Your task to perform on an android device: open app "Google Calendar" Image 0: 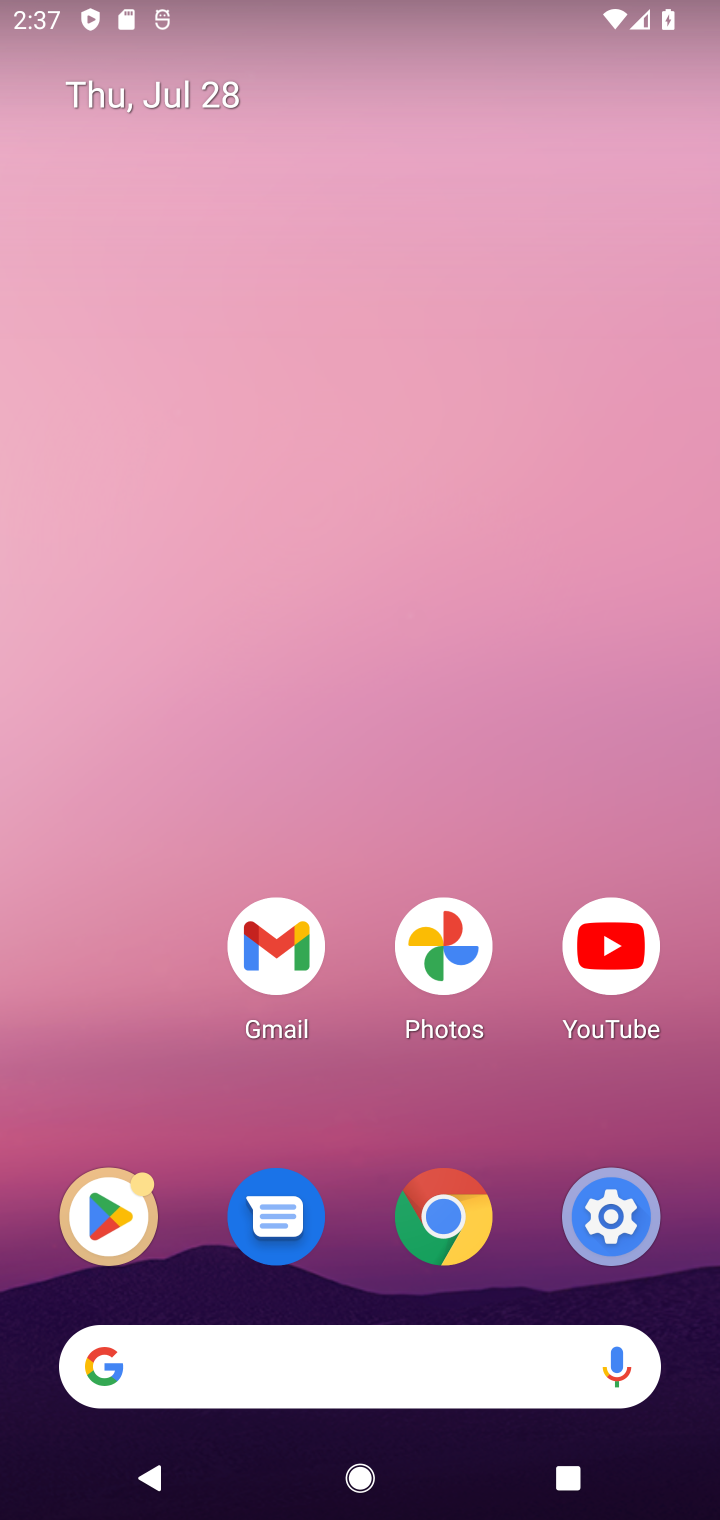
Step 0: drag from (149, 1002) to (196, 18)
Your task to perform on an android device: open app "Google Calendar" Image 1: 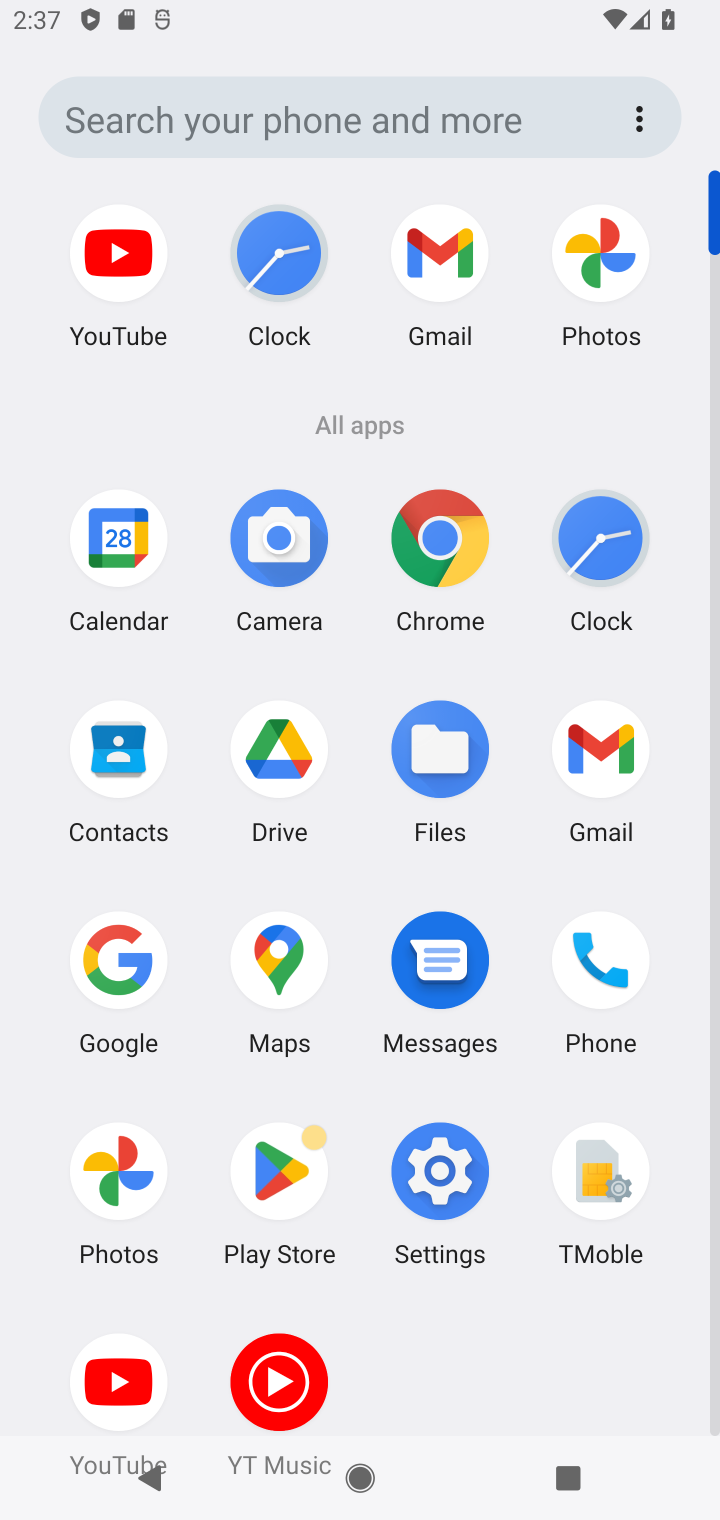
Step 1: click (124, 538)
Your task to perform on an android device: open app "Google Calendar" Image 2: 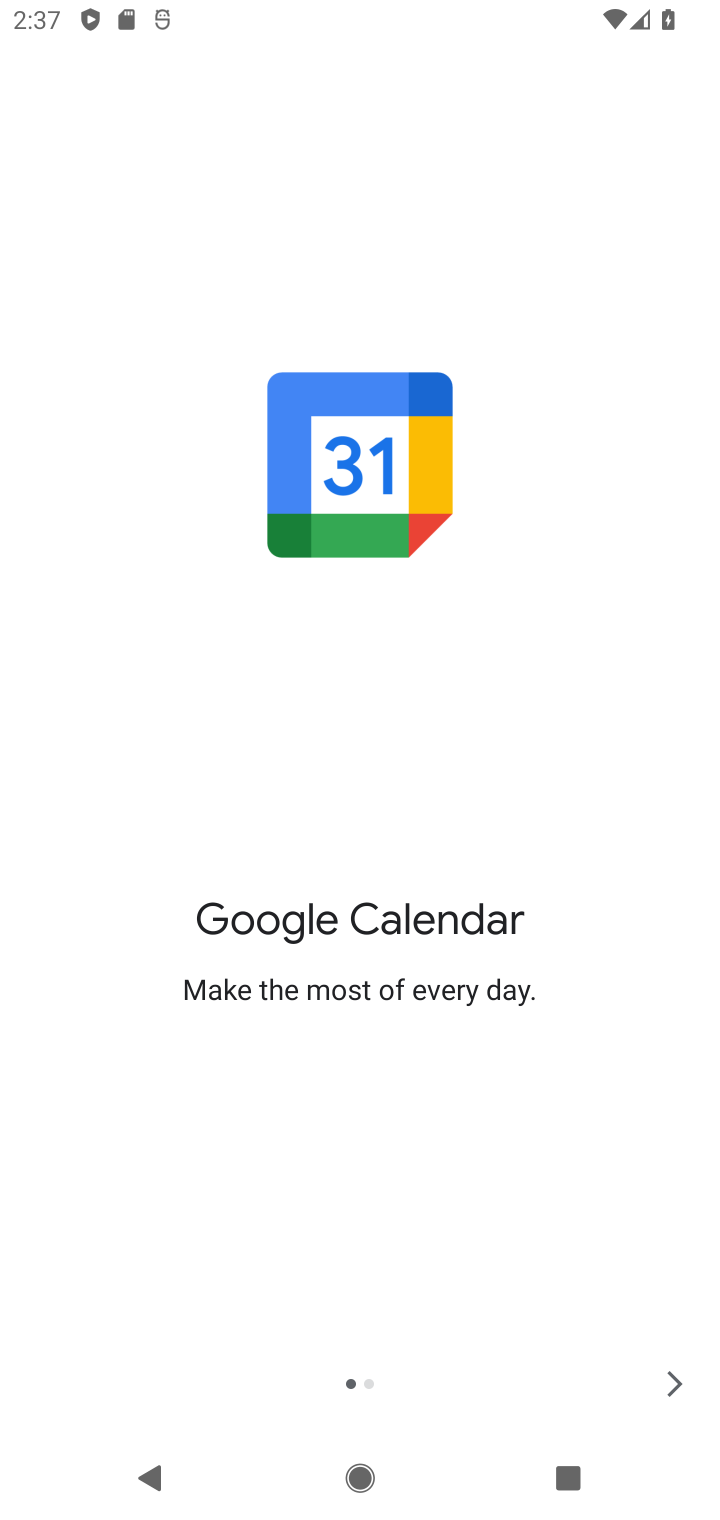
Step 2: click (673, 1381)
Your task to perform on an android device: open app "Google Calendar" Image 3: 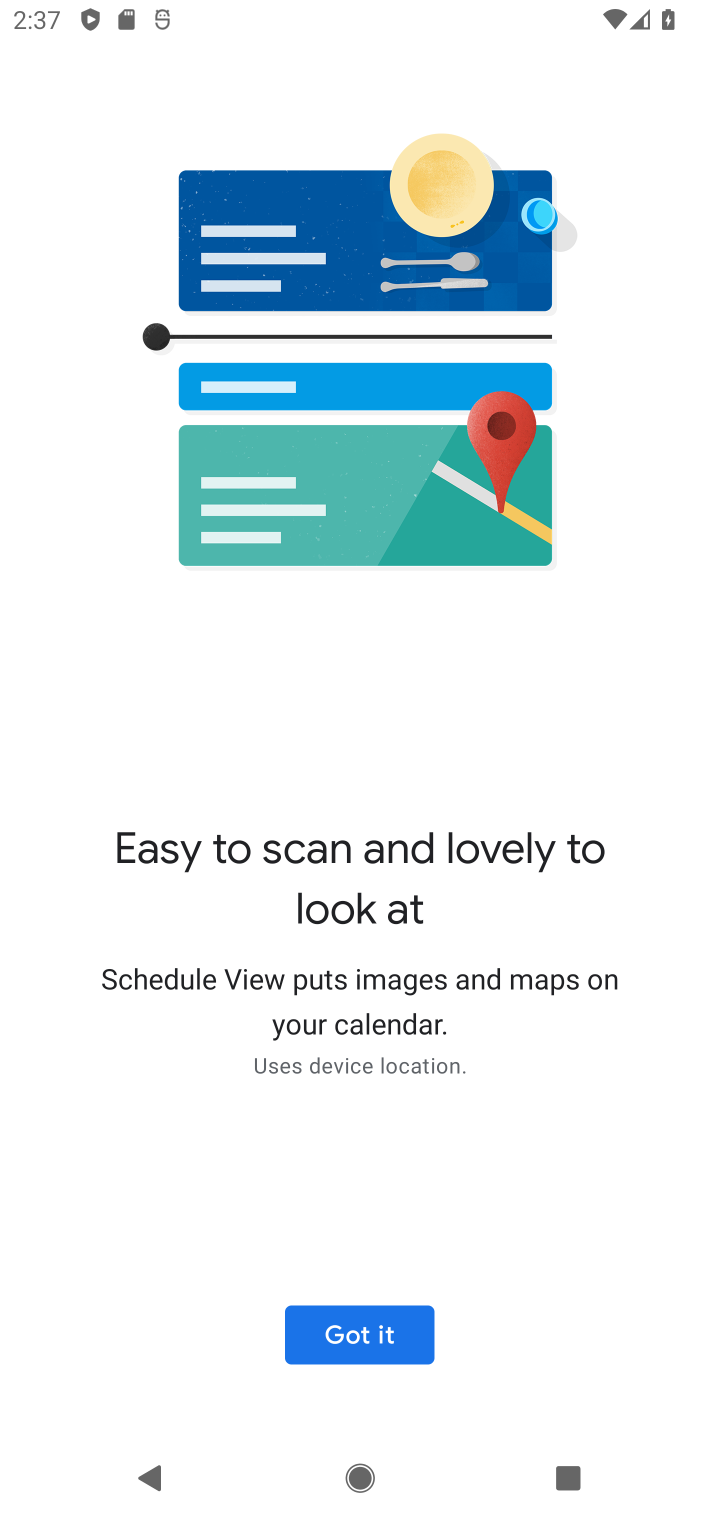
Step 3: click (416, 1337)
Your task to perform on an android device: open app "Google Calendar" Image 4: 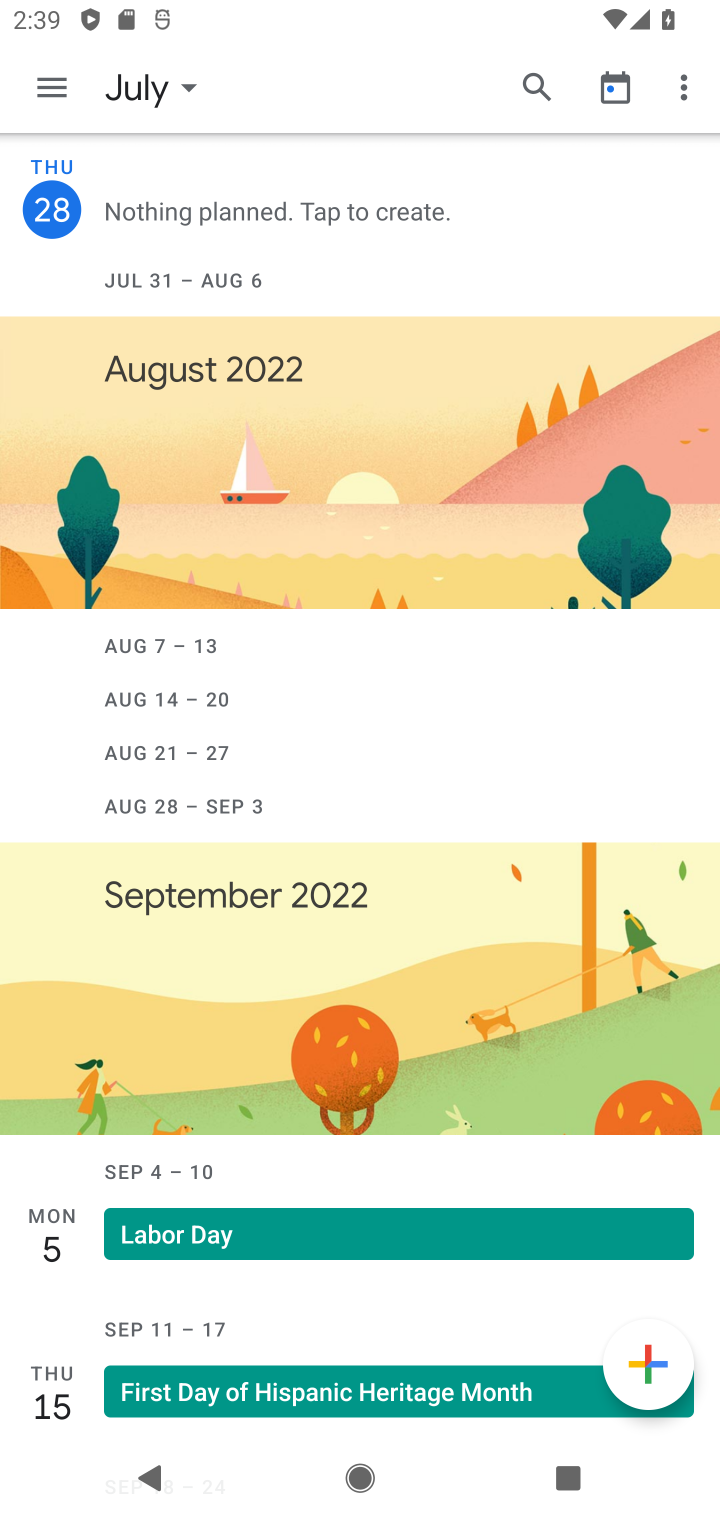
Step 4: task complete